Your task to perform on an android device: Add "macbook pro" to the cart on walmart.com Image 0: 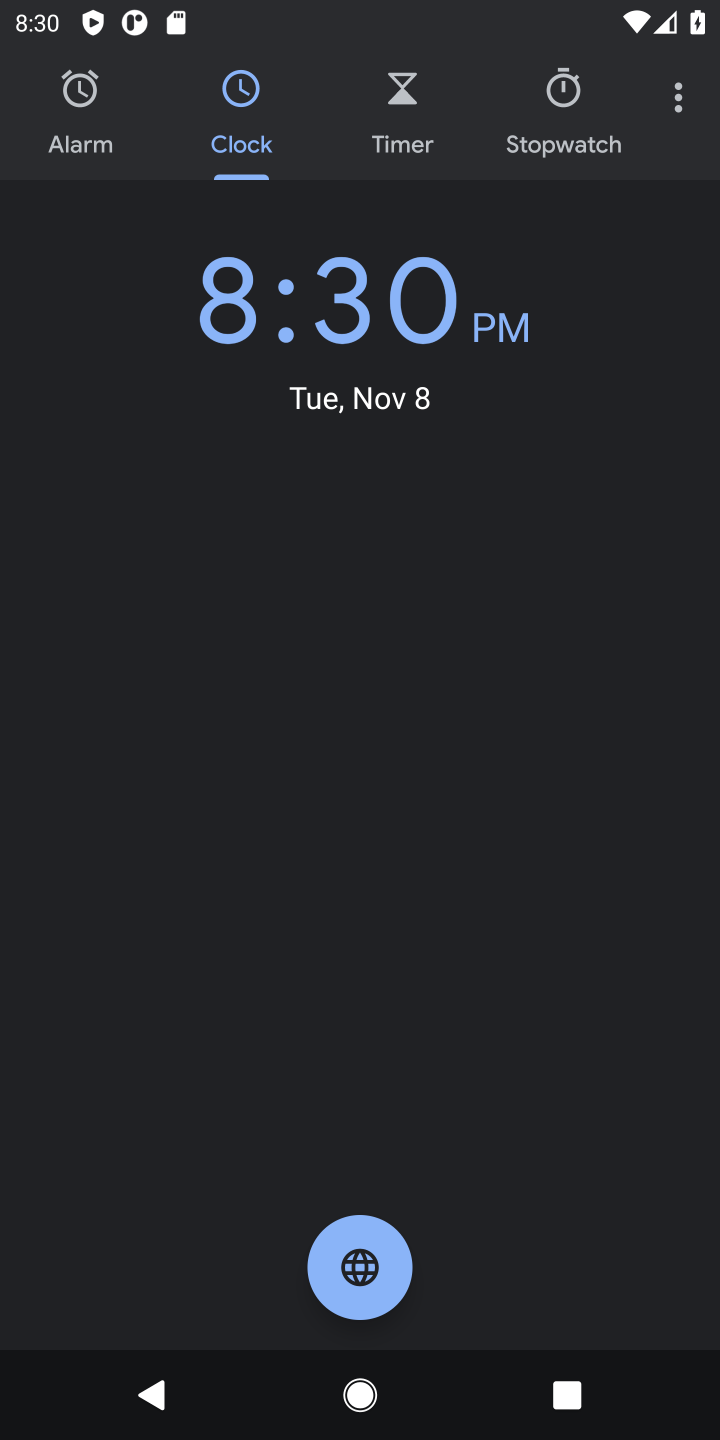
Step 0: press home button
Your task to perform on an android device: Add "macbook pro" to the cart on walmart.com Image 1: 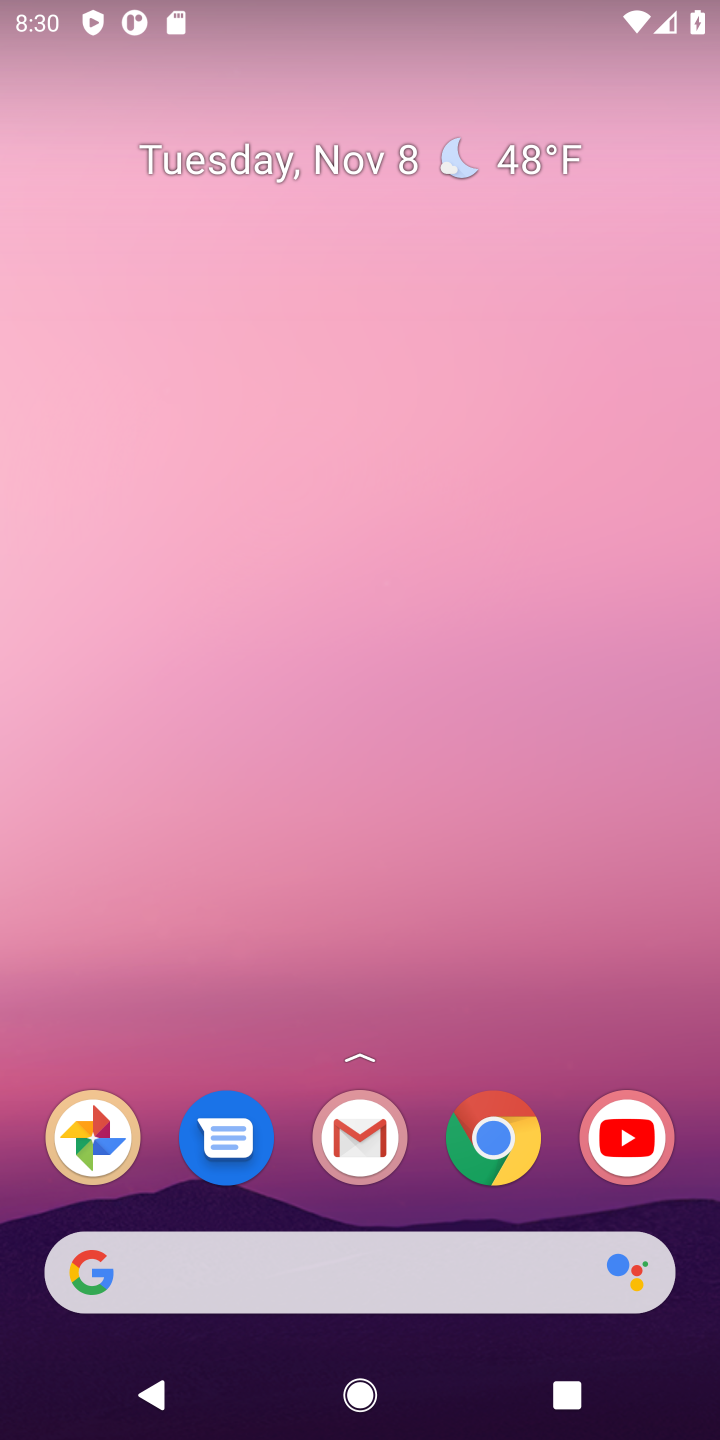
Step 1: click (492, 1151)
Your task to perform on an android device: Add "macbook pro" to the cart on walmart.com Image 2: 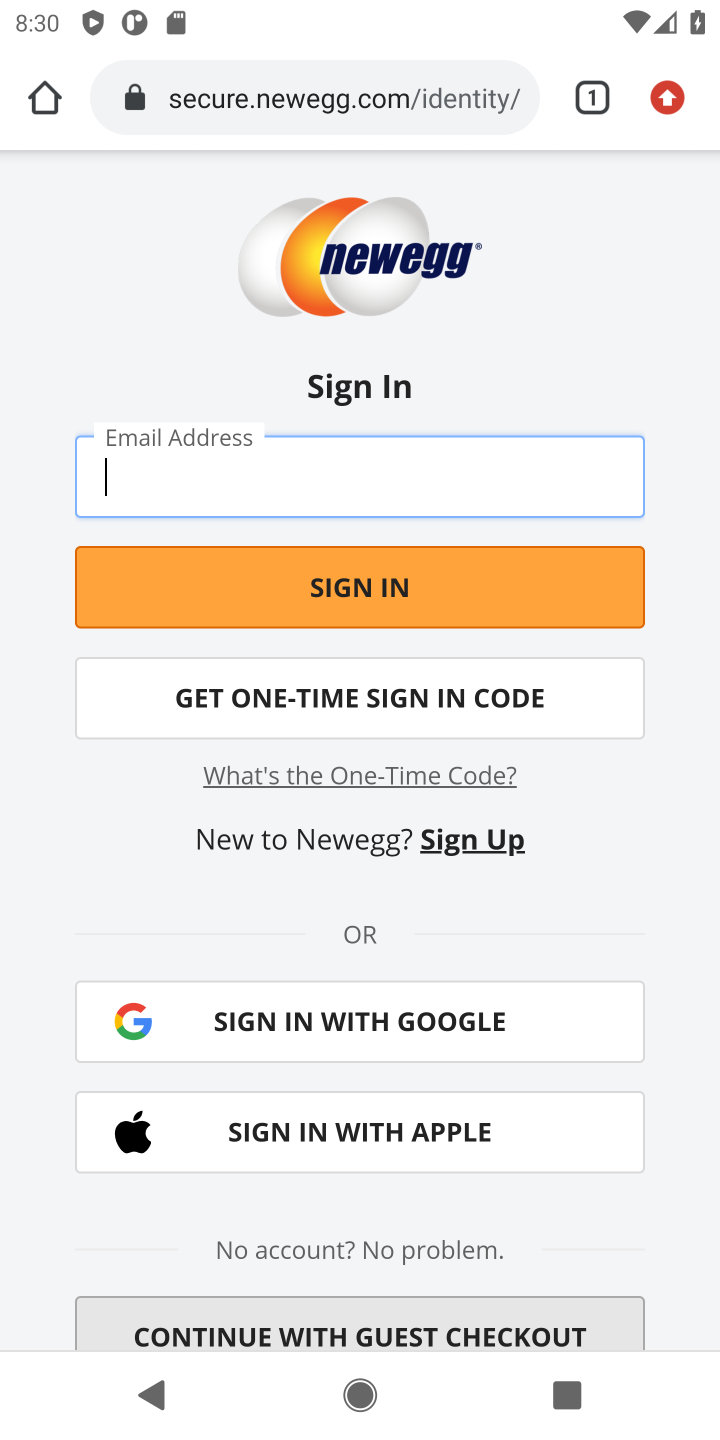
Step 2: click (428, 105)
Your task to perform on an android device: Add "macbook pro" to the cart on walmart.com Image 3: 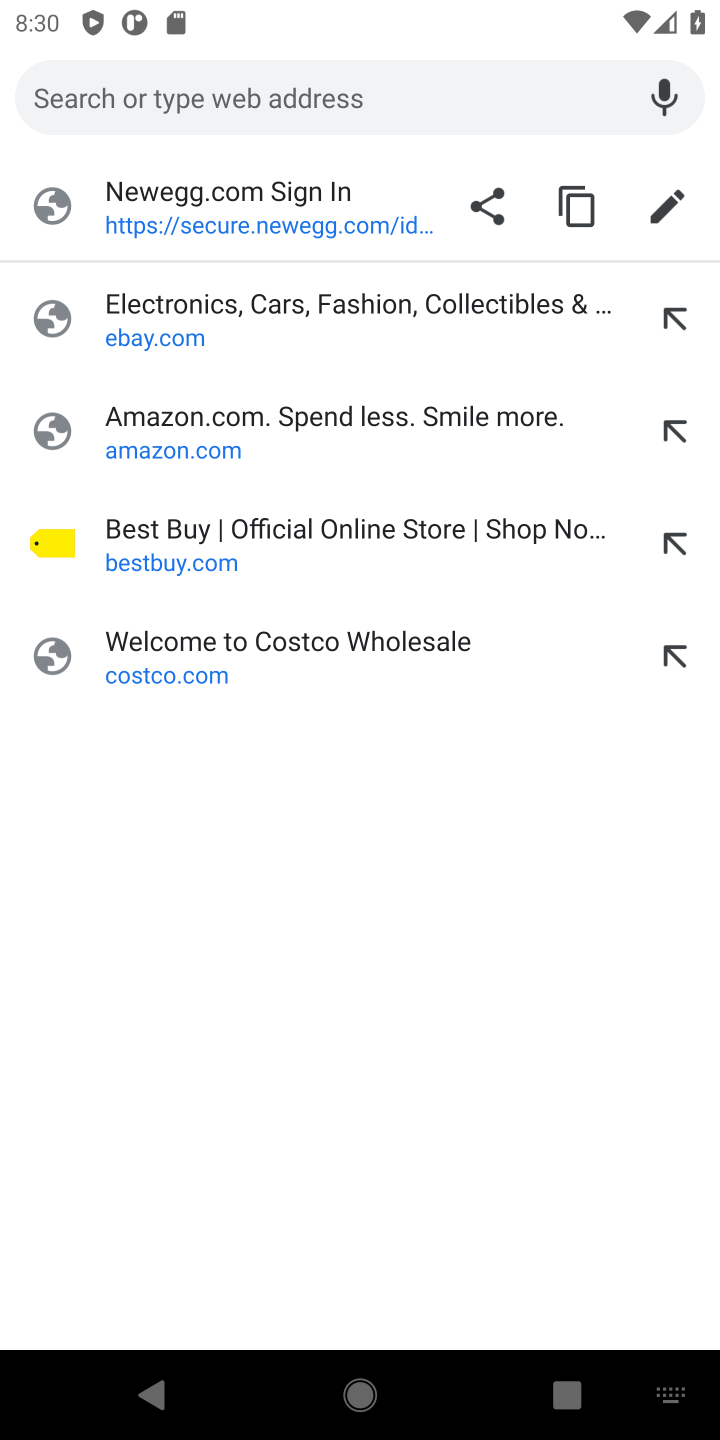
Step 3: type "walmart.com"
Your task to perform on an android device: Add "macbook pro" to the cart on walmart.com Image 4: 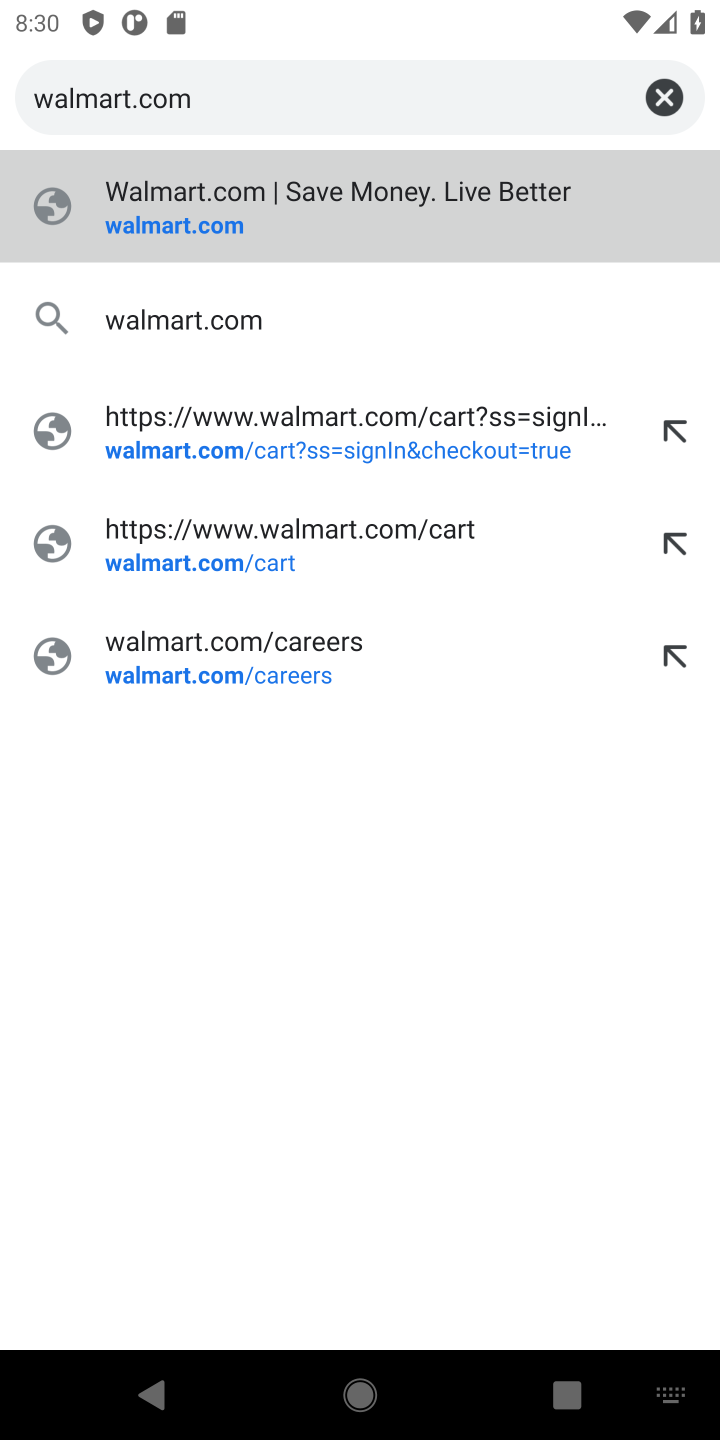
Step 4: press enter
Your task to perform on an android device: Add "macbook pro" to the cart on walmart.com Image 5: 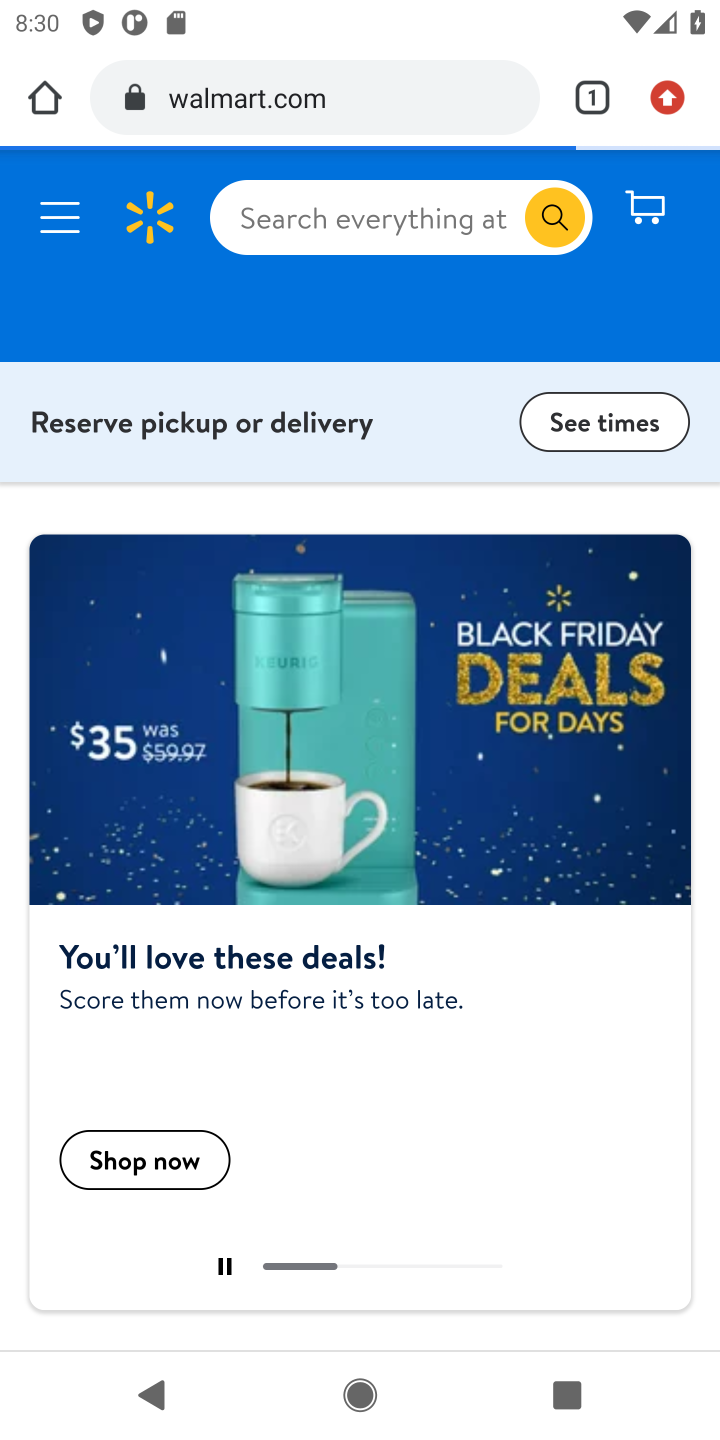
Step 5: click (391, 208)
Your task to perform on an android device: Add "macbook pro" to the cart on walmart.com Image 6: 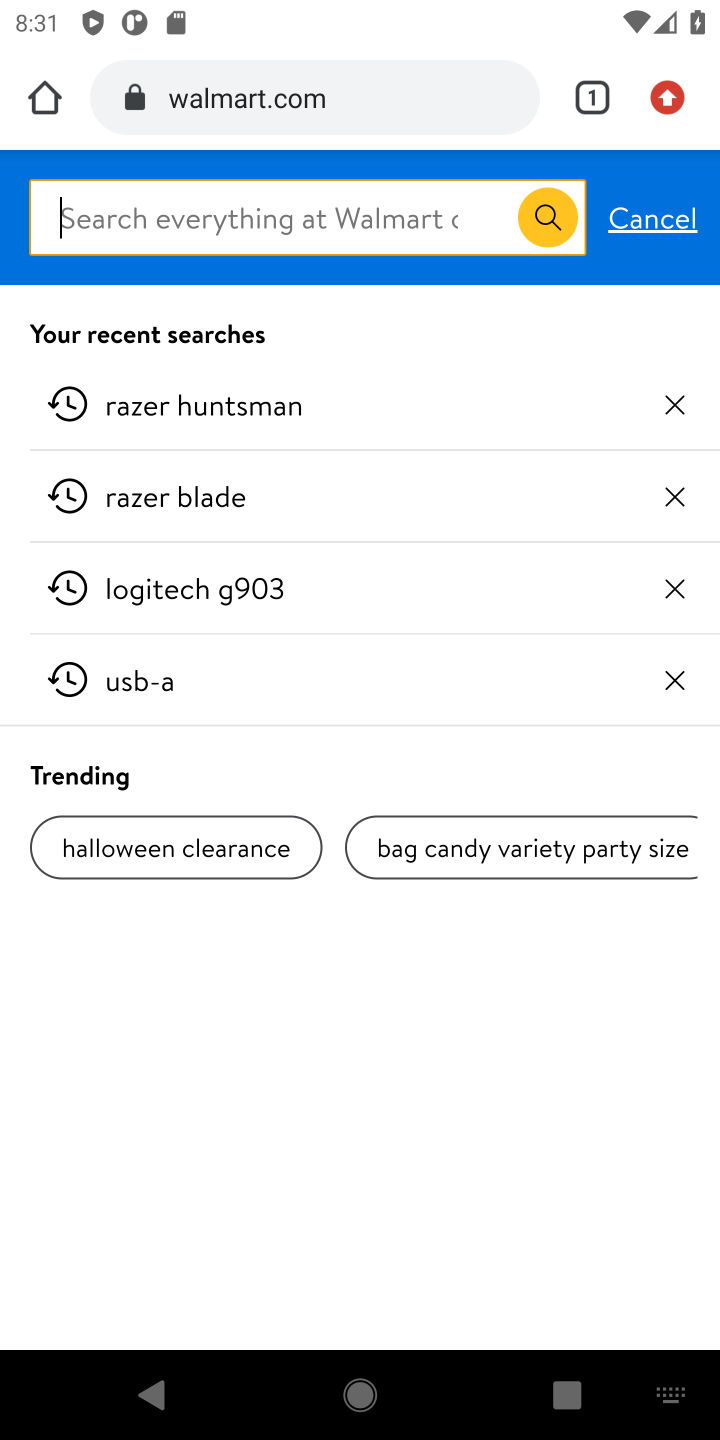
Step 6: type "macbook pro"
Your task to perform on an android device: Add "macbook pro" to the cart on walmart.com Image 7: 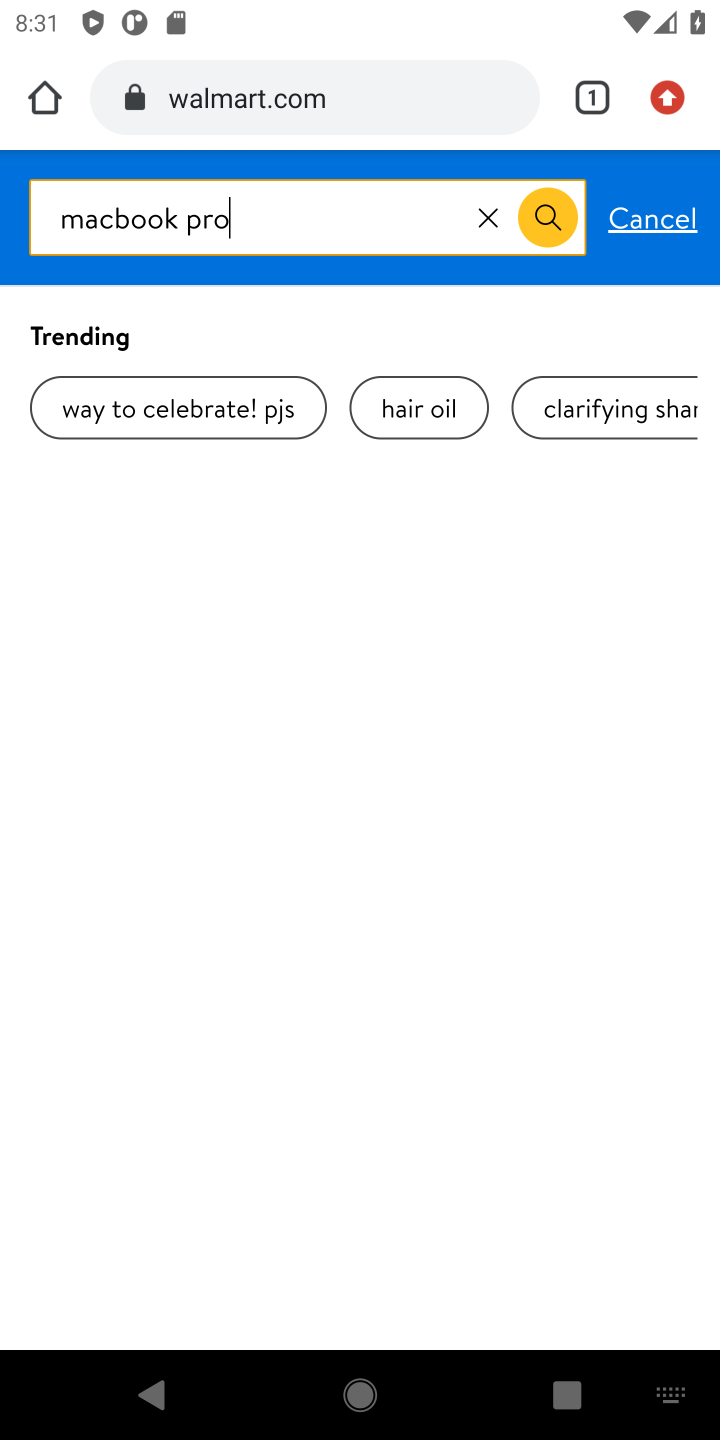
Step 7: press enter
Your task to perform on an android device: Add "macbook pro" to the cart on walmart.com Image 8: 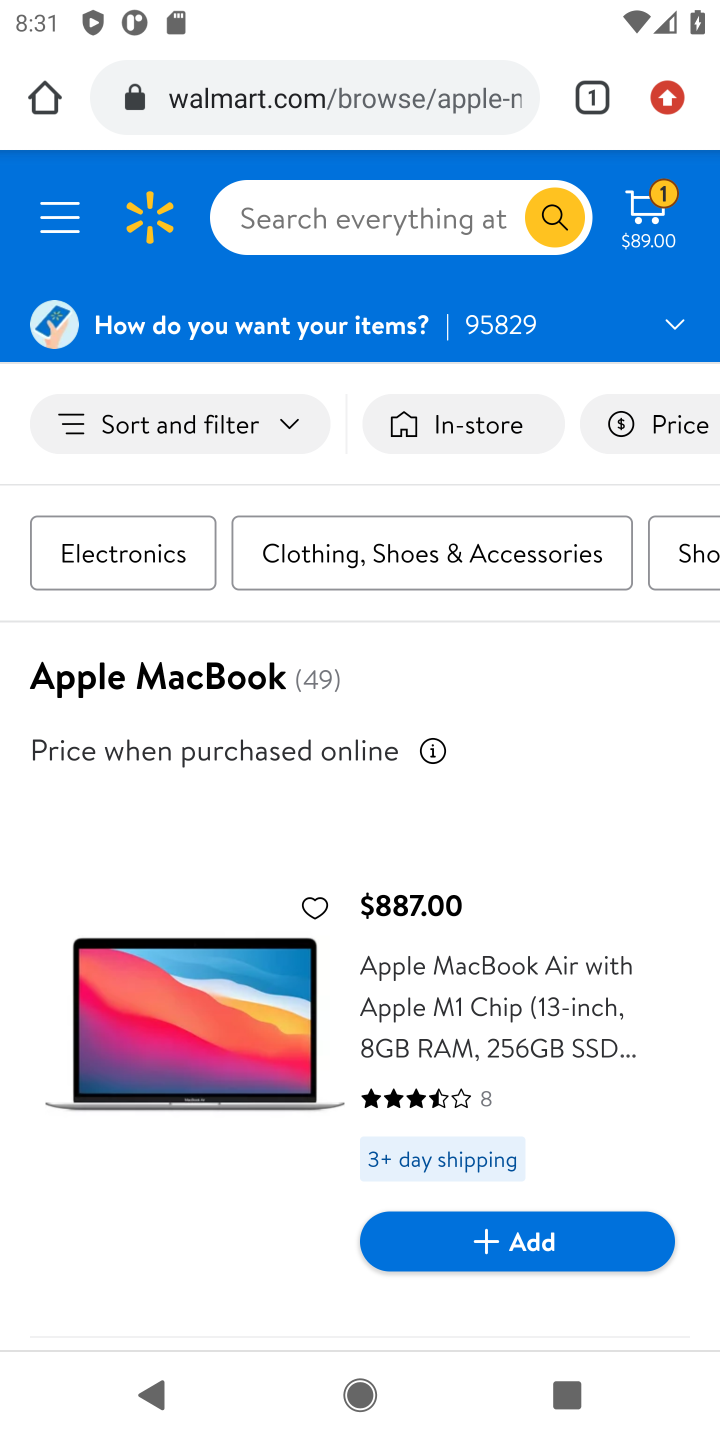
Step 8: task complete